Your task to perform on an android device: Open internet settings Image 0: 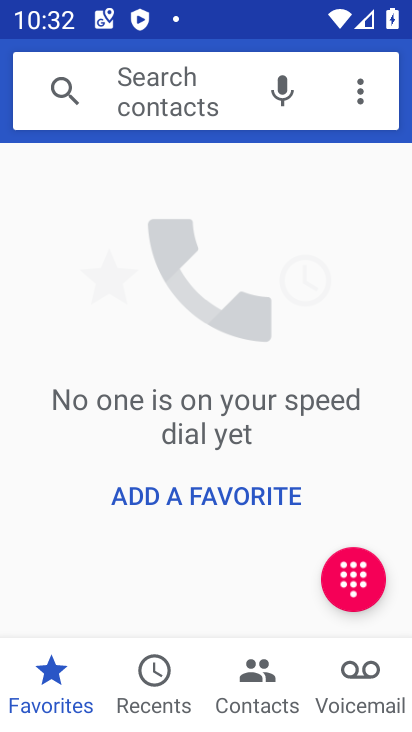
Step 0: press home button
Your task to perform on an android device: Open internet settings Image 1: 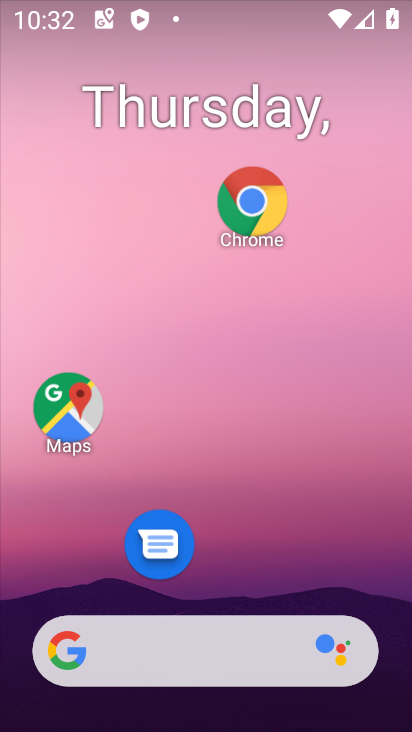
Step 1: drag from (231, 577) to (254, 22)
Your task to perform on an android device: Open internet settings Image 2: 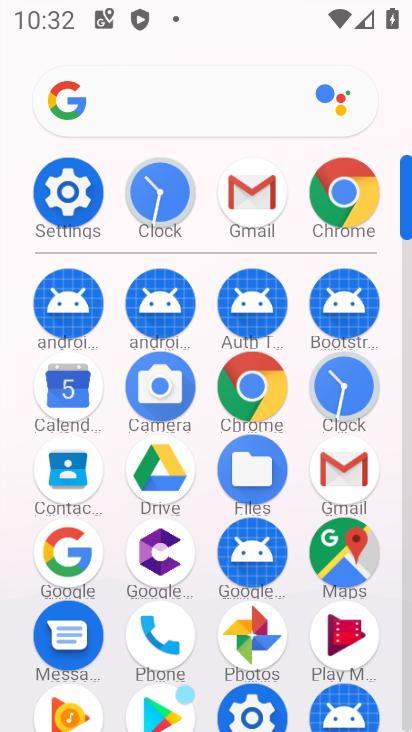
Step 2: click (63, 184)
Your task to perform on an android device: Open internet settings Image 3: 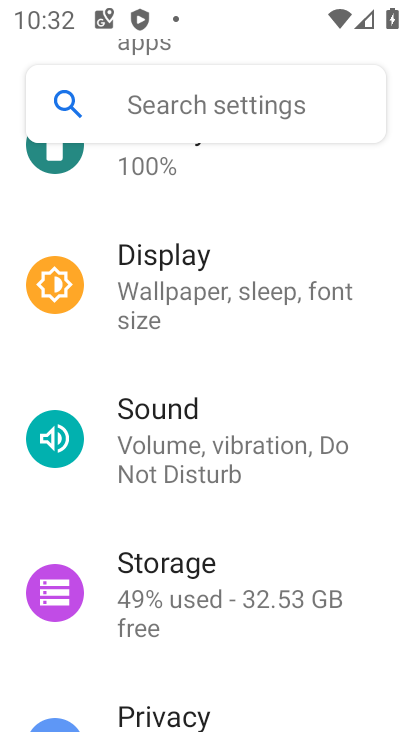
Step 3: drag from (221, 225) to (228, 580)
Your task to perform on an android device: Open internet settings Image 4: 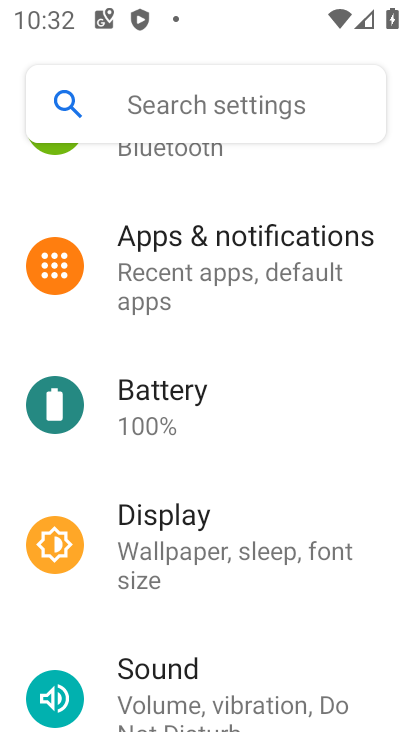
Step 4: drag from (199, 224) to (238, 596)
Your task to perform on an android device: Open internet settings Image 5: 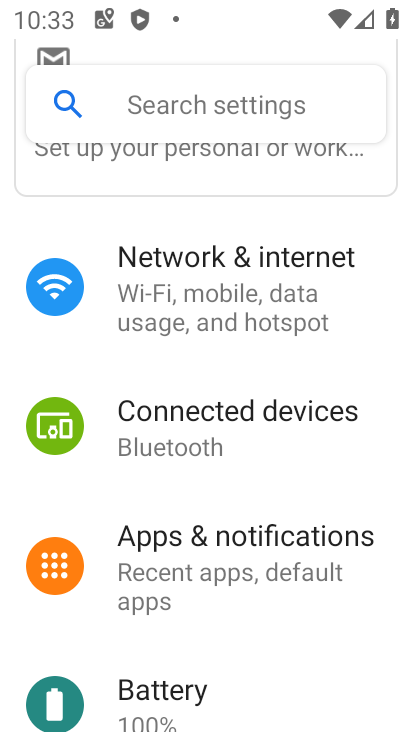
Step 5: click (207, 307)
Your task to perform on an android device: Open internet settings Image 6: 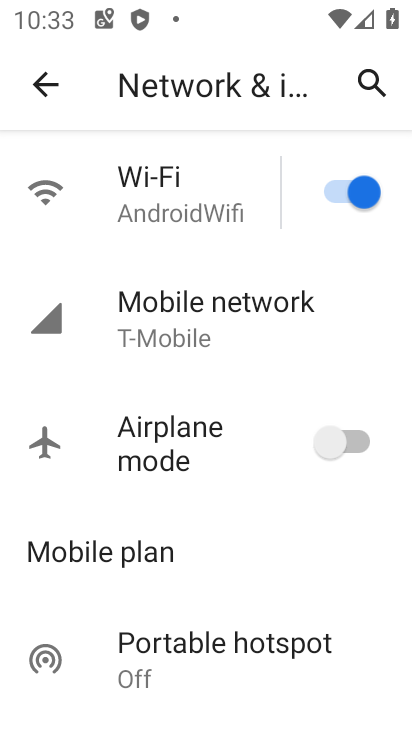
Step 6: drag from (151, 588) to (193, 167)
Your task to perform on an android device: Open internet settings Image 7: 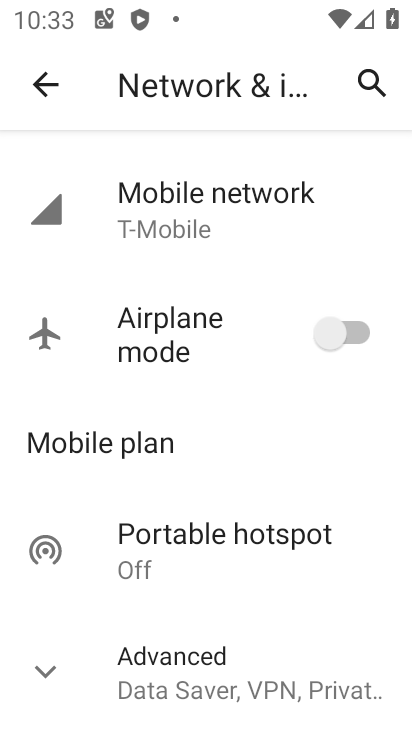
Step 7: click (47, 678)
Your task to perform on an android device: Open internet settings Image 8: 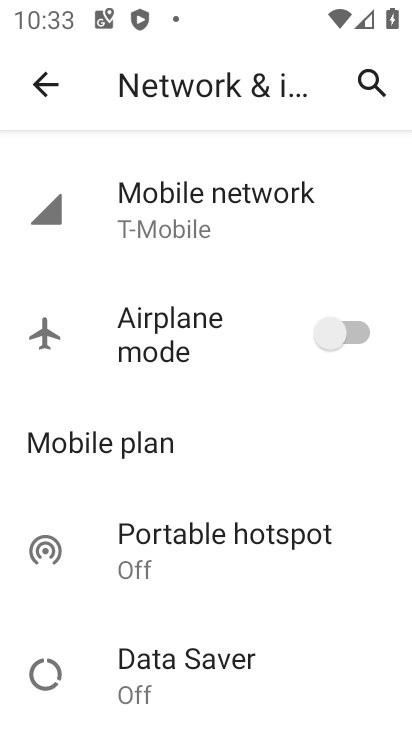
Step 8: task complete